Your task to perform on an android device: toggle improve location accuracy Image 0: 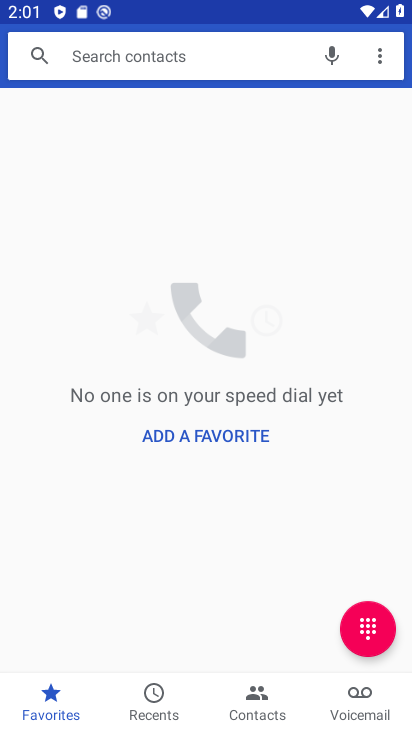
Step 0: press home button
Your task to perform on an android device: toggle improve location accuracy Image 1: 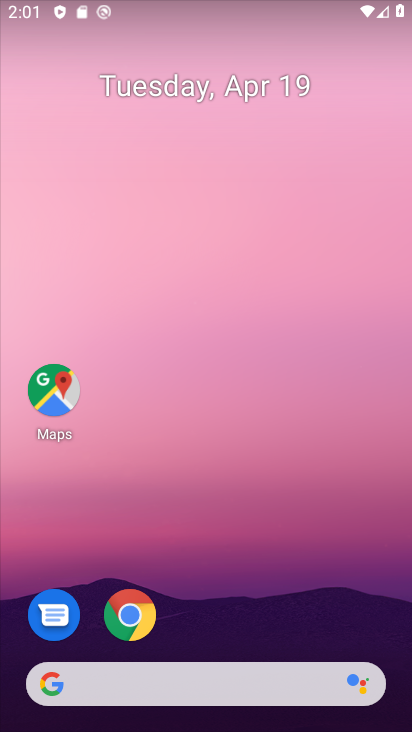
Step 1: drag from (207, 620) to (235, 42)
Your task to perform on an android device: toggle improve location accuracy Image 2: 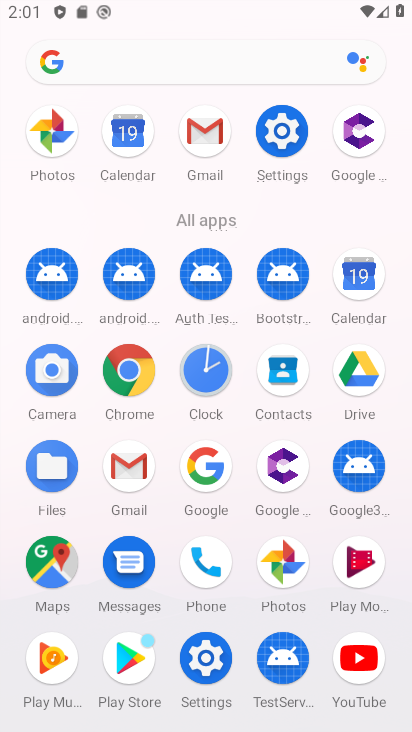
Step 2: click (208, 662)
Your task to perform on an android device: toggle improve location accuracy Image 3: 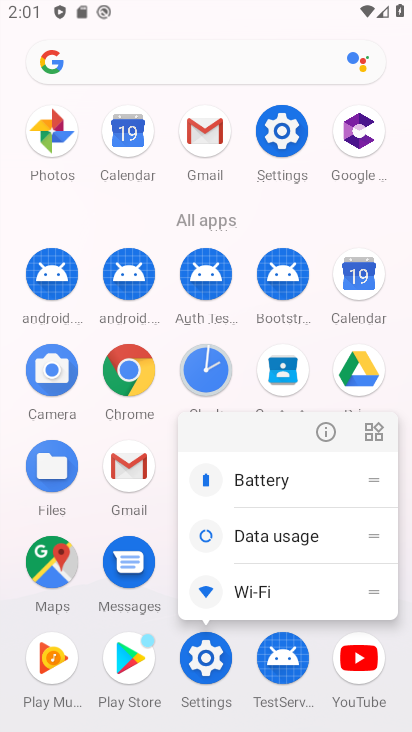
Step 3: click (316, 433)
Your task to perform on an android device: toggle improve location accuracy Image 4: 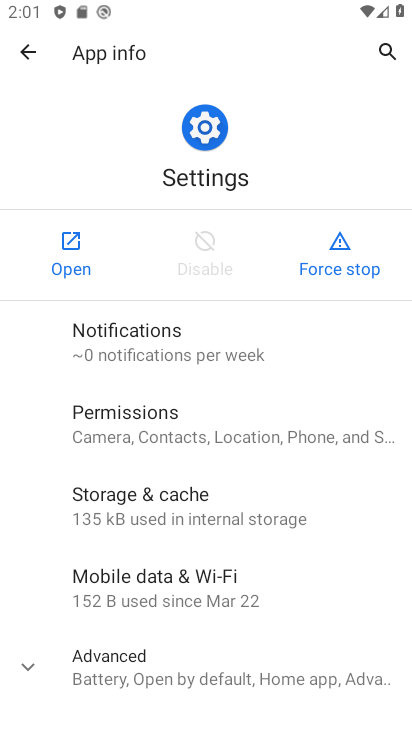
Step 4: click (73, 255)
Your task to perform on an android device: toggle improve location accuracy Image 5: 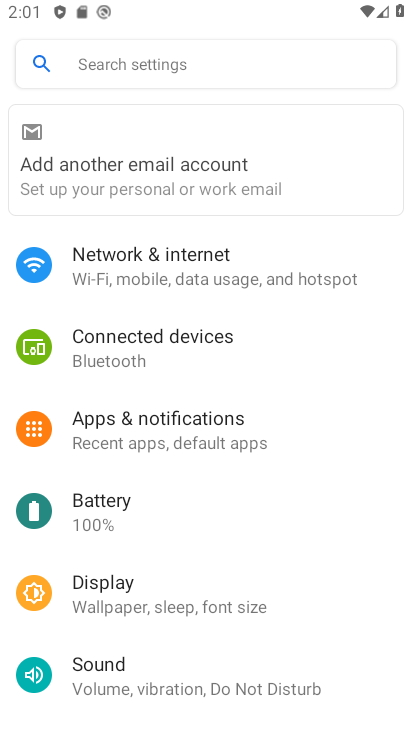
Step 5: drag from (217, 587) to (330, 127)
Your task to perform on an android device: toggle improve location accuracy Image 6: 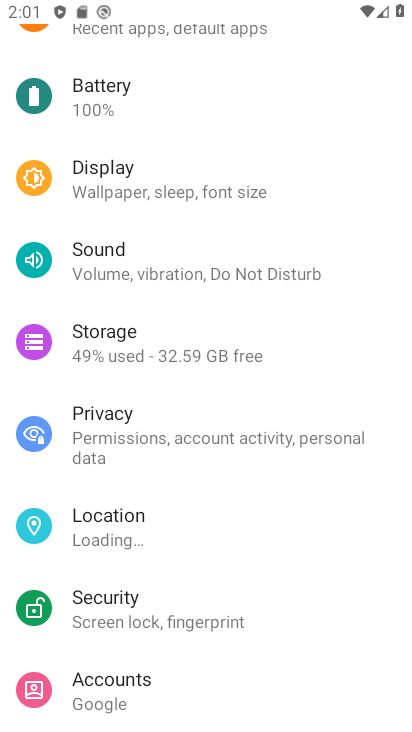
Step 6: click (150, 545)
Your task to perform on an android device: toggle improve location accuracy Image 7: 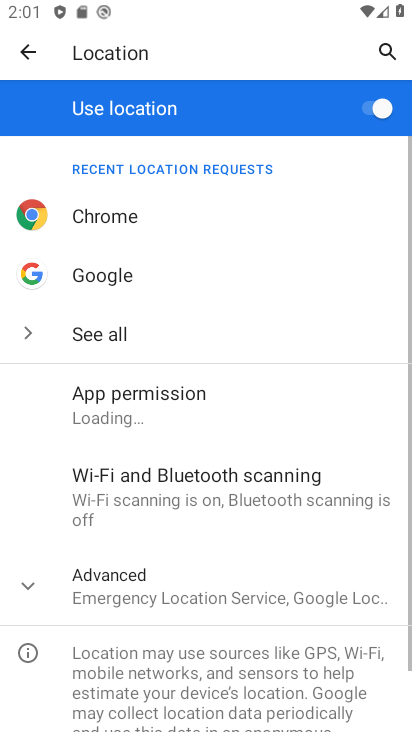
Step 7: drag from (206, 500) to (254, 291)
Your task to perform on an android device: toggle improve location accuracy Image 8: 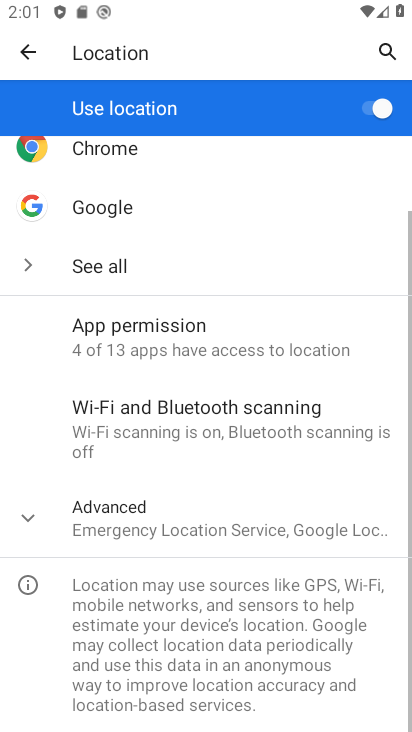
Step 8: click (143, 530)
Your task to perform on an android device: toggle improve location accuracy Image 9: 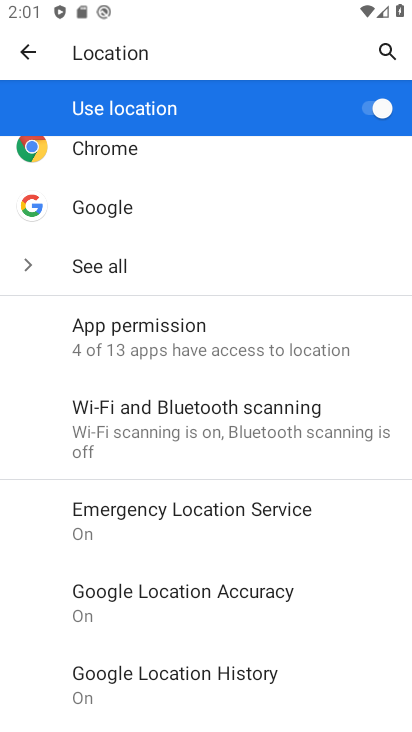
Step 9: click (225, 604)
Your task to perform on an android device: toggle improve location accuracy Image 10: 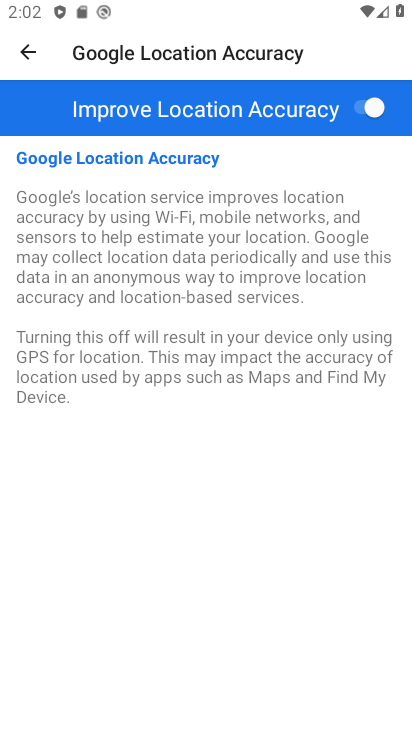
Step 10: drag from (264, 584) to (364, 157)
Your task to perform on an android device: toggle improve location accuracy Image 11: 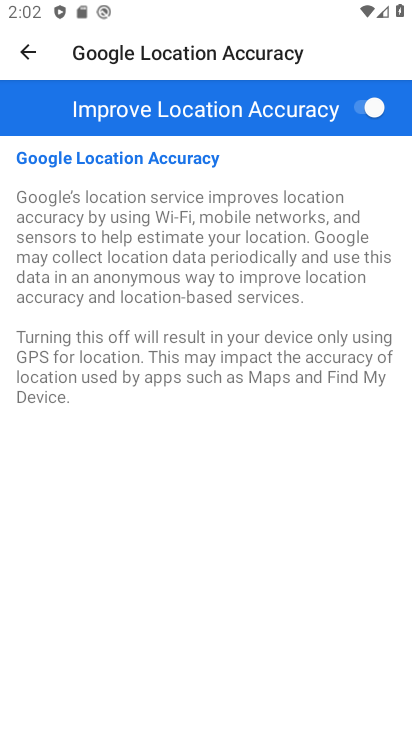
Step 11: click (357, 115)
Your task to perform on an android device: toggle improve location accuracy Image 12: 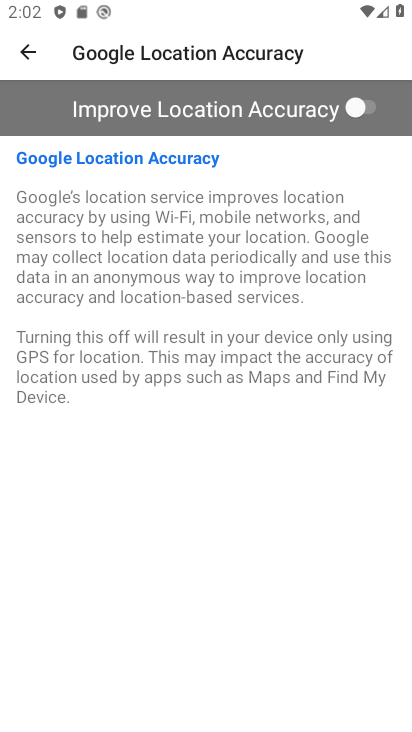
Step 12: task complete